Your task to perform on an android device: turn off improve location accuracy Image 0: 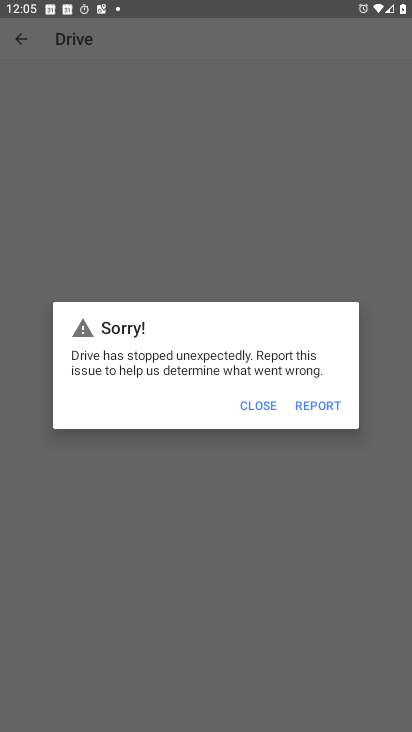
Step 0: press home button
Your task to perform on an android device: turn off improve location accuracy Image 1: 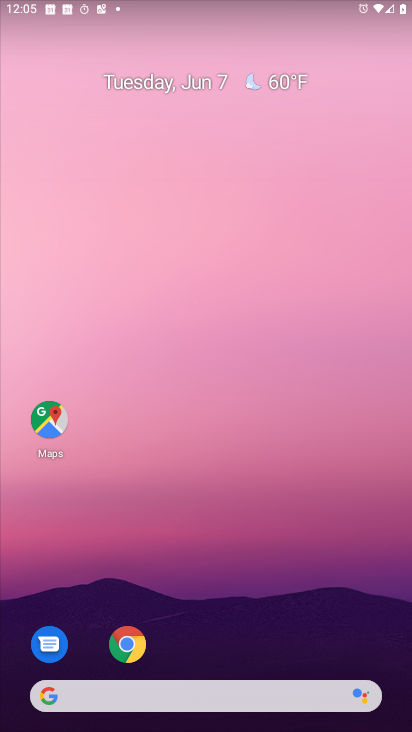
Step 1: drag from (122, 730) to (124, 65)
Your task to perform on an android device: turn off improve location accuracy Image 2: 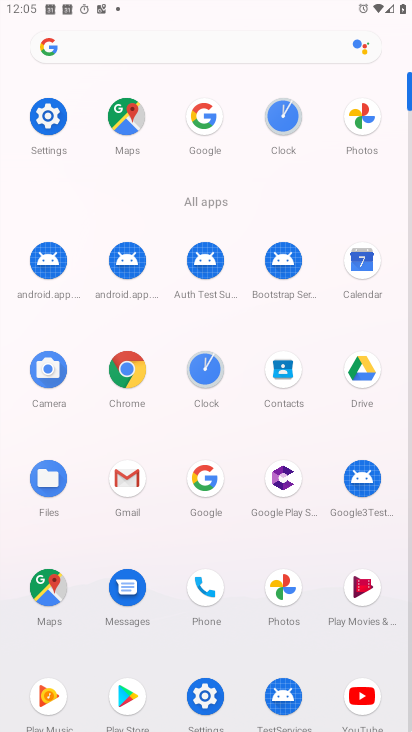
Step 2: click (50, 120)
Your task to perform on an android device: turn off improve location accuracy Image 3: 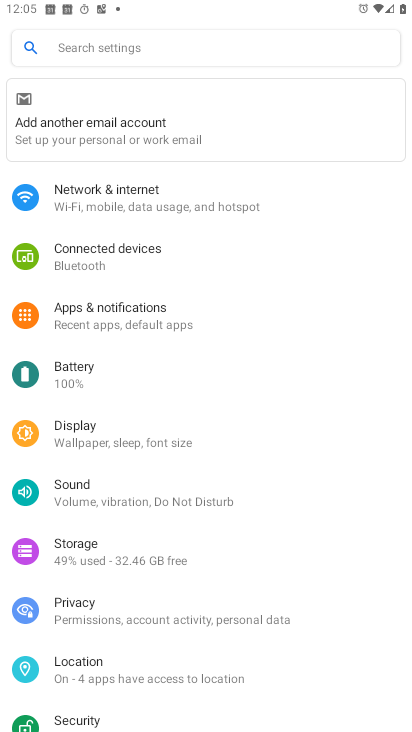
Step 3: click (96, 670)
Your task to perform on an android device: turn off improve location accuracy Image 4: 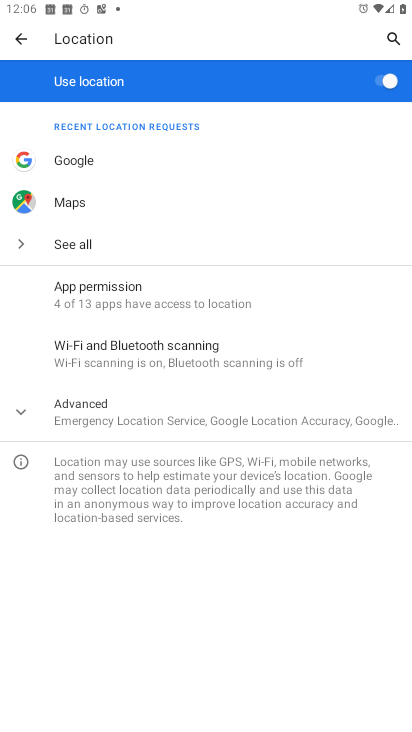
Step 4: click (254, 415)
Your task to perform on an android device: turn off improve location accuracy Image 5: 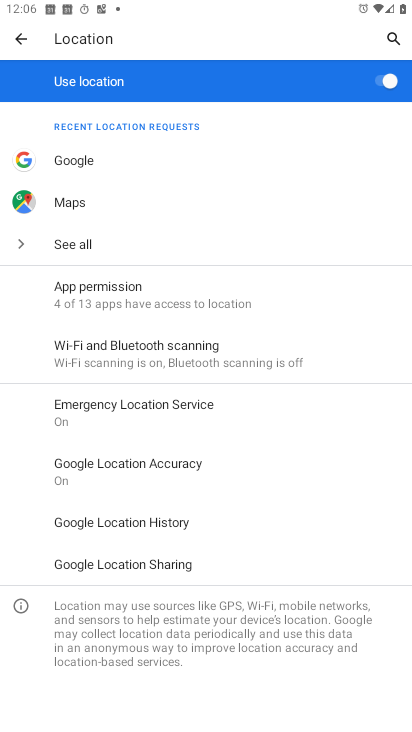
Step 5: click (166, 463)
Your task to perform on an android device: turn off improve location accuracy Image 6: 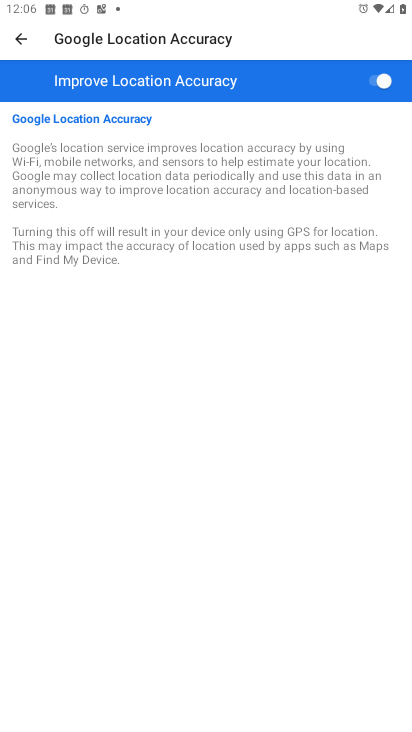
Step 6: click (391, 83)
Your task to perform on an android device: turn off improve location accuracy Image 7: 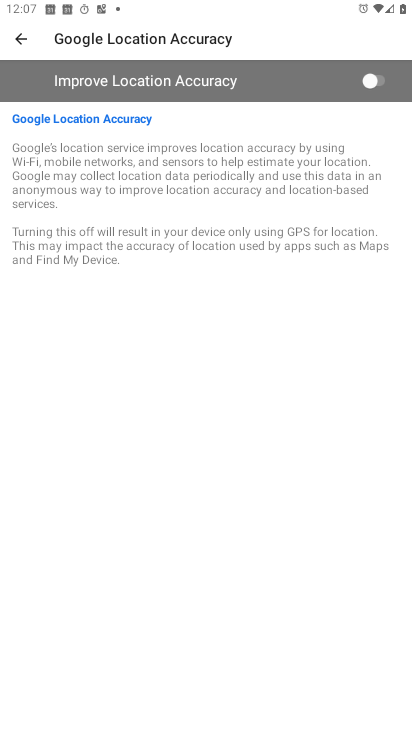
Step 7: task complete